Your task to perform on an android device: Open maps Image 0: 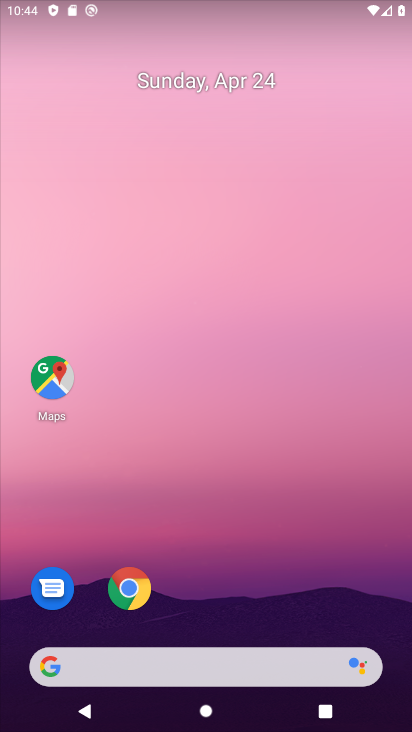
Step 0: click (61, 370)
Your task to perform on an android device: Open maps Image 1: 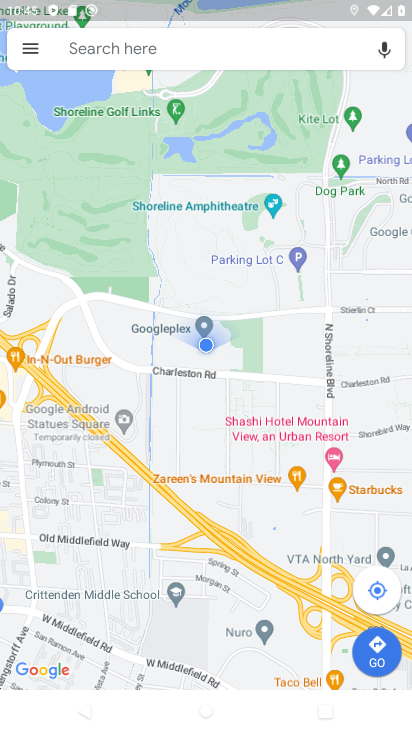
Step 1: task complete